Your task to perform on an android device: turn on sleep mode Image 0: 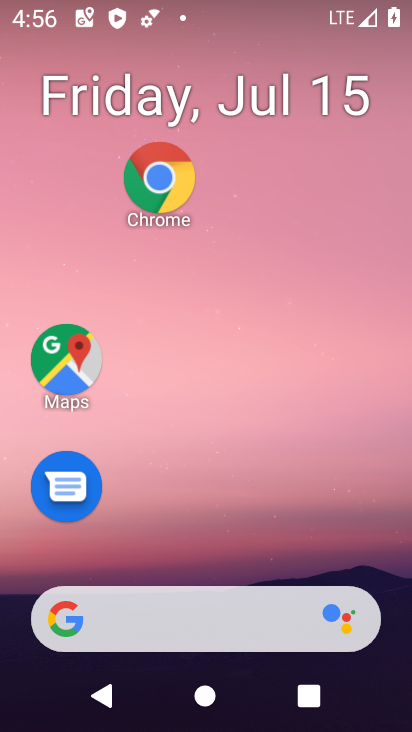
Step 0: click (272, 77)
Your task to perform on an android device: turn on sleep mode Image 1: 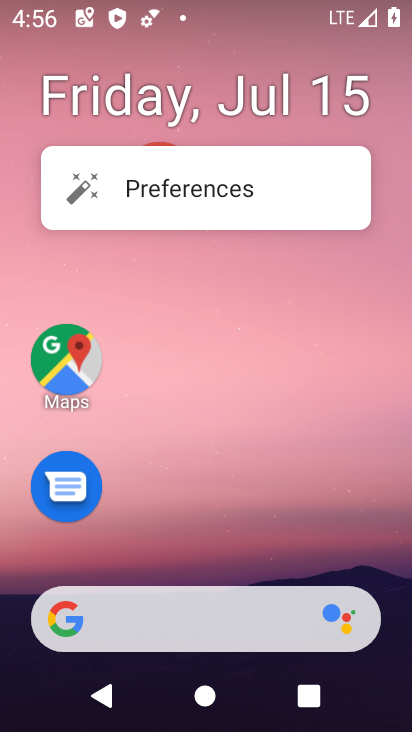
Step 1: click (252, 556)
Your task to perform on an android device: turn on sleep mode Image 2: 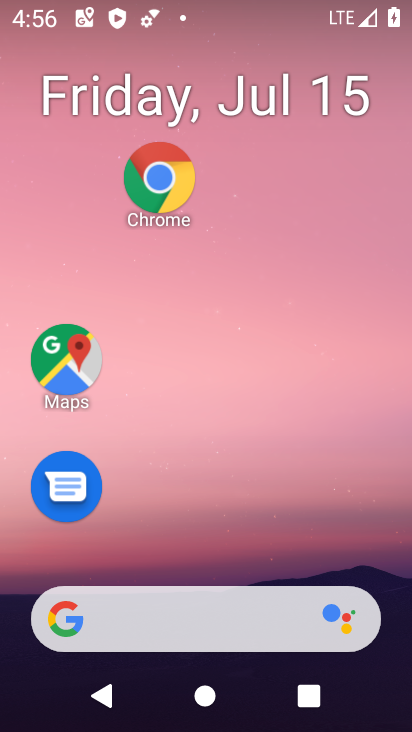
Step 2: drag from (252, 416) to (265, 183)
Your task to perform on an android device: turn on sleep mode Image 3: 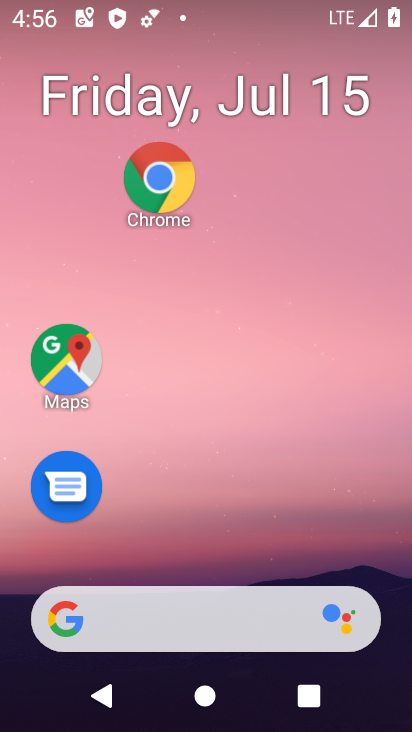
Step 3: drag from (237, 541) to (245, 51)
Your task to perform on an android device: turn on sleep mode Image 4: 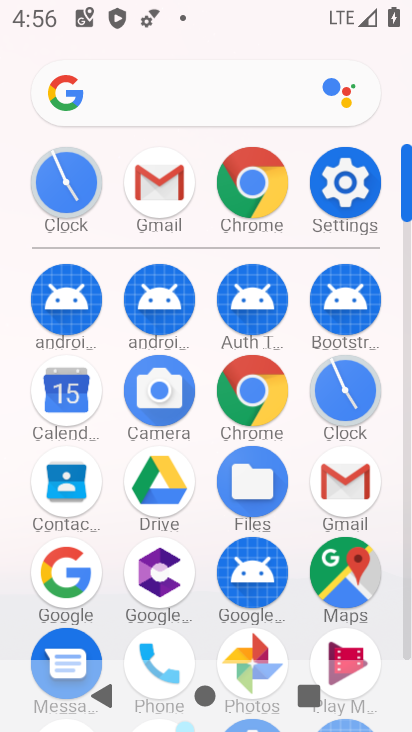
Step 4: click (345, 177)
Your task to perform on an android device: turn on sleep mode Image 5: 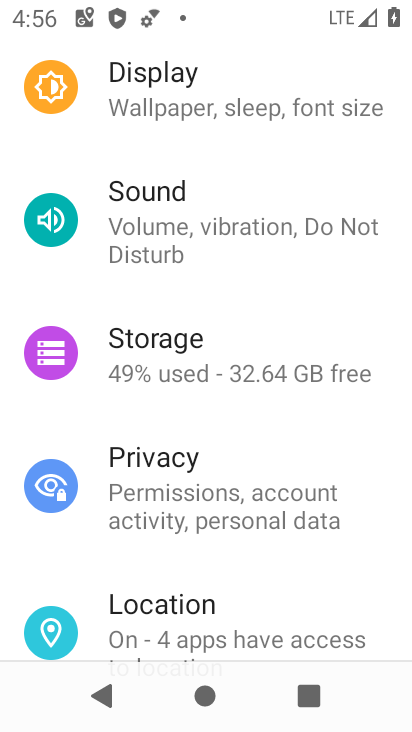
Step 5: task complete